Your task to perform on an android device: set the stopwatch Image 0: 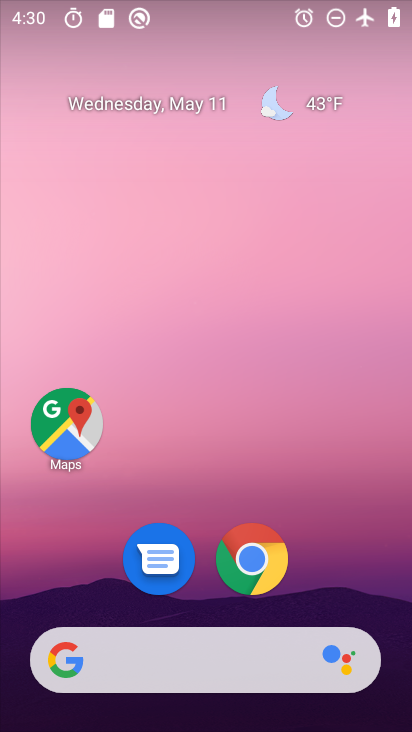
Step 0: drag from (291, 451) to (209, 106)
Your task to perform on an android device: set the stopwatch Image 1: 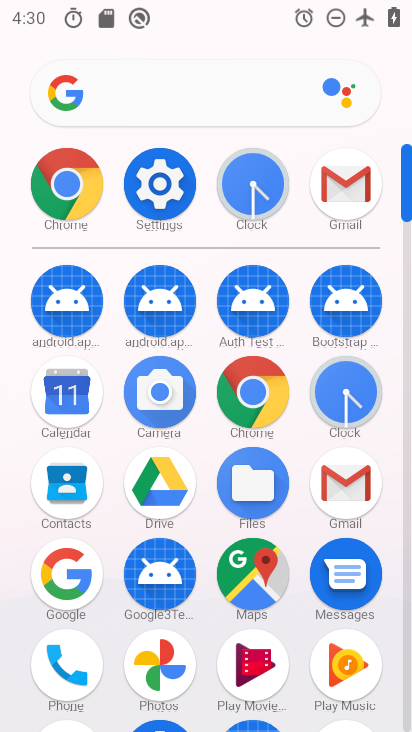
Step 1: click (250, 177)
Your task to perform on an android device: set the stopwatch Image 2: 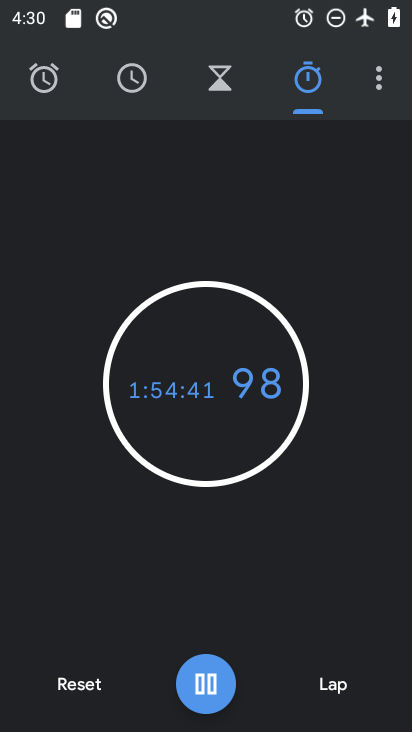
Step 2: click (89, 683)
Your task to perform on an android device: set the stopwatch Image 3: 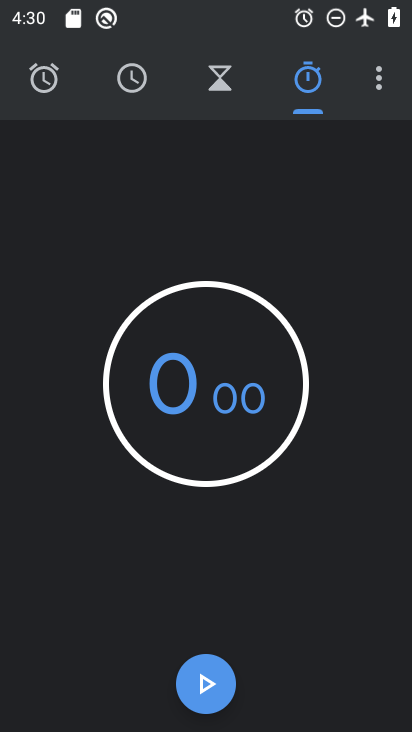
Step 3: click (207, 682)
Your task to perform on an android device: set the stopwatch Image 4: 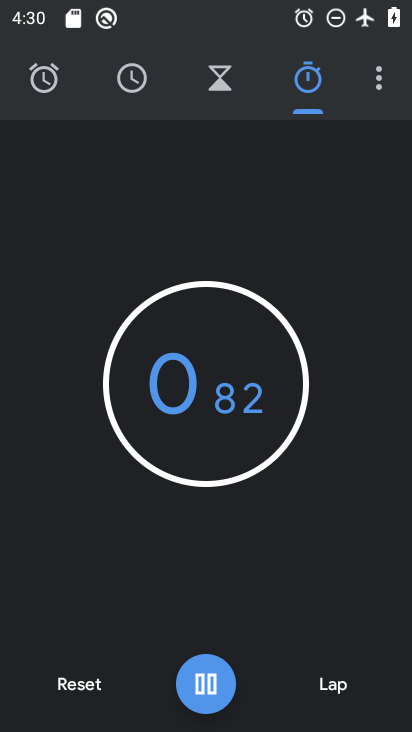
Step 4: task complete